Your task to perform on an android device: Open calendar and show me the first week of next month Image 0: 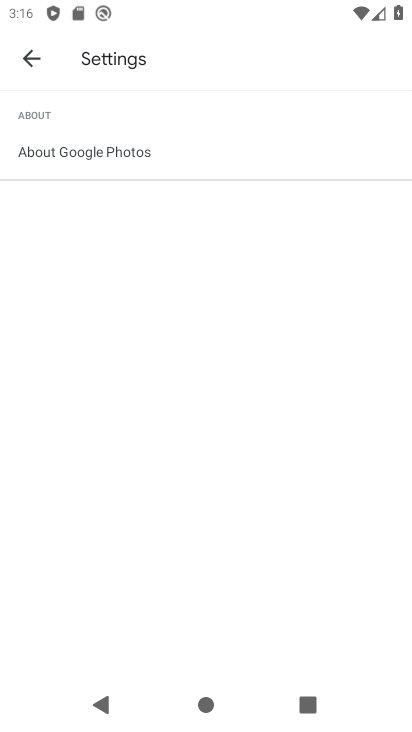
Step 0: press home button
Your task to perform on an android device: Open calendar and show me the first week of next month Image 1: 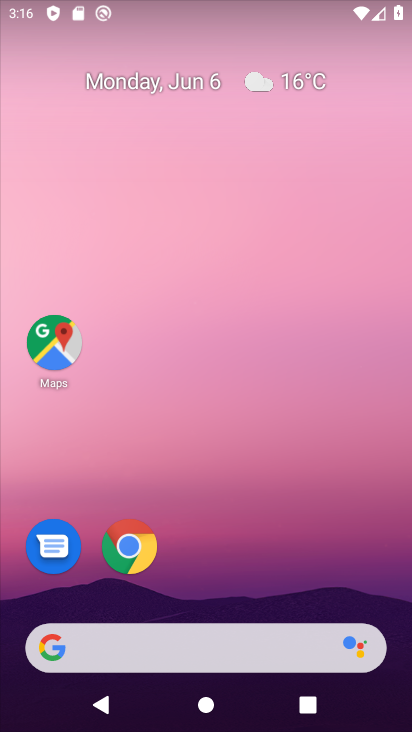
Step 1: drag from (243, 501) to (218, 7)
Your task to perform on an android device: Open calendar and show me the first week of next month Image 2: 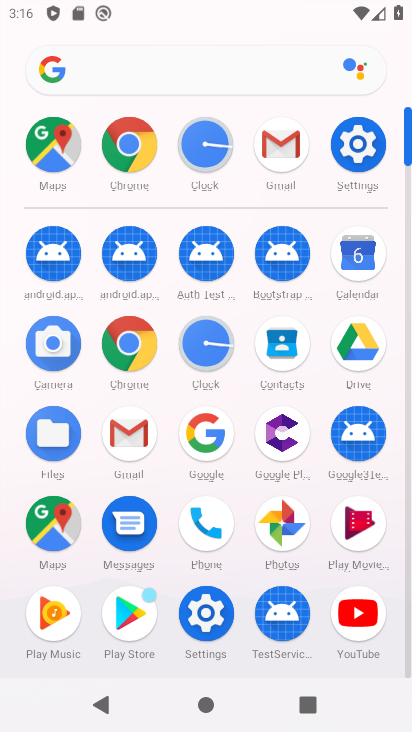
Step 2: click (346, 257)
Your task to perform on an android device: Open calendar and show me the first week of next month Image 3: 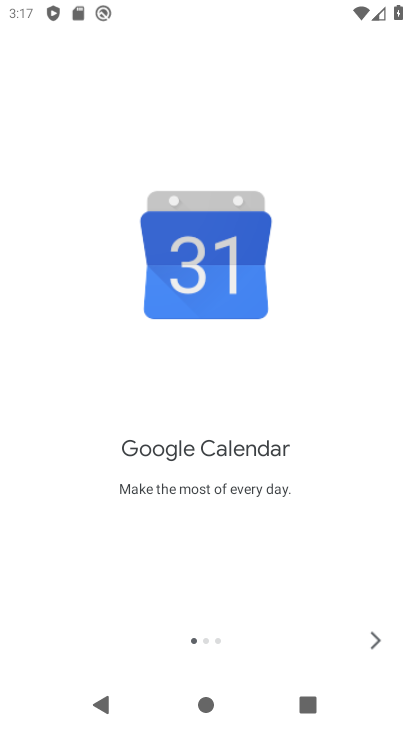
Step 3: click (368, 648)
Your task to perform on an android device: Open calendar and show me the first week of next month Image 4: 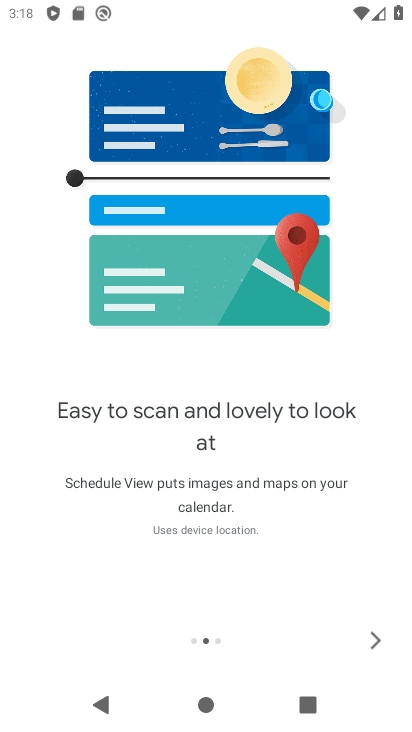
Step 4: click (368, 648)
Your task to perform on an android device: Open calendar and show me the first week of next month Image 5: 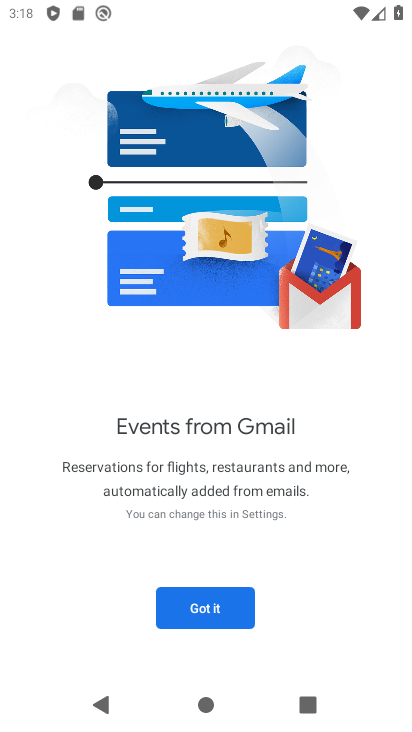
Step 5: click (179, 620)
Your task to perform on an android device: Open calendar and show me the first week of next month Image 6: 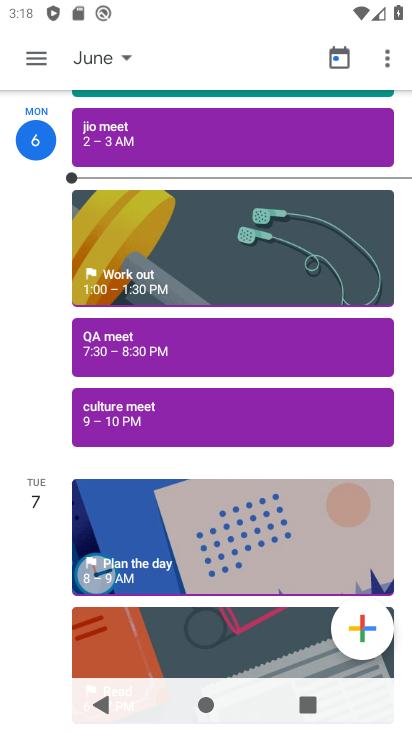
Step 6: click (103, 54)
Your task to perform on an android device: Open calendar and show me the first week of next month Image 7: 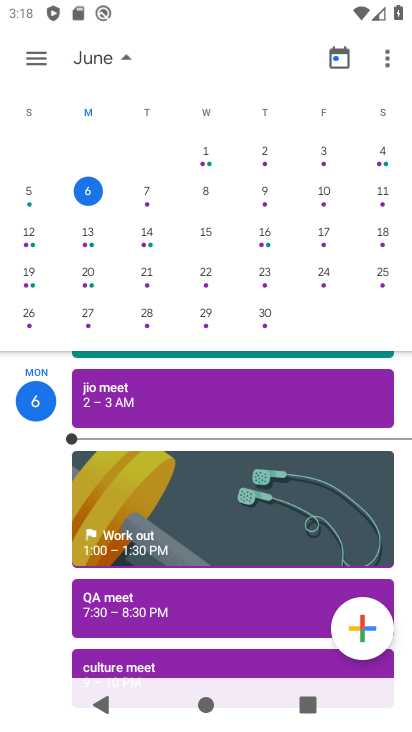
Step 7: task complete